Your task to perform on an android device: uninstall "ColorNote Notepad Notes" Image 0: 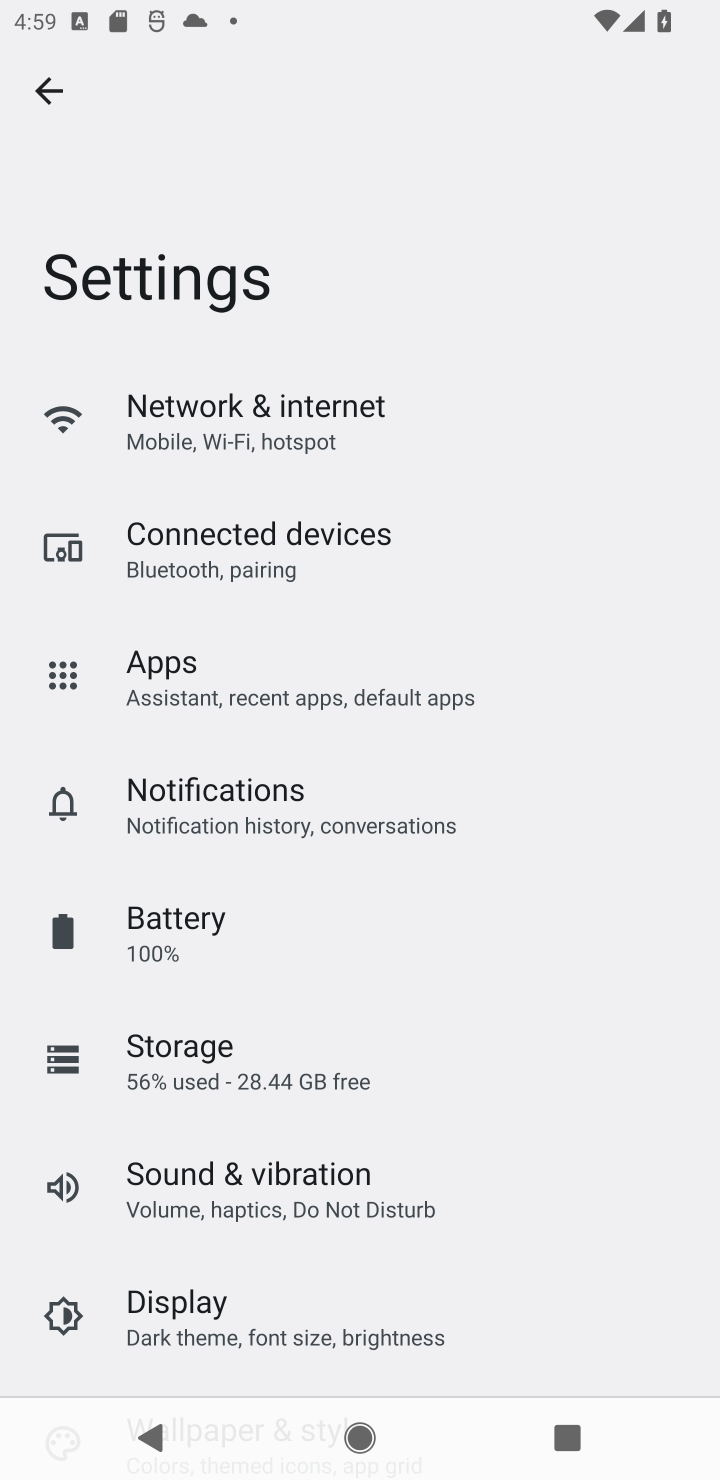
Step 0: press home button
Your task to perform on an android device: uninstall "ColorNote Notepad Notes" Image 1: 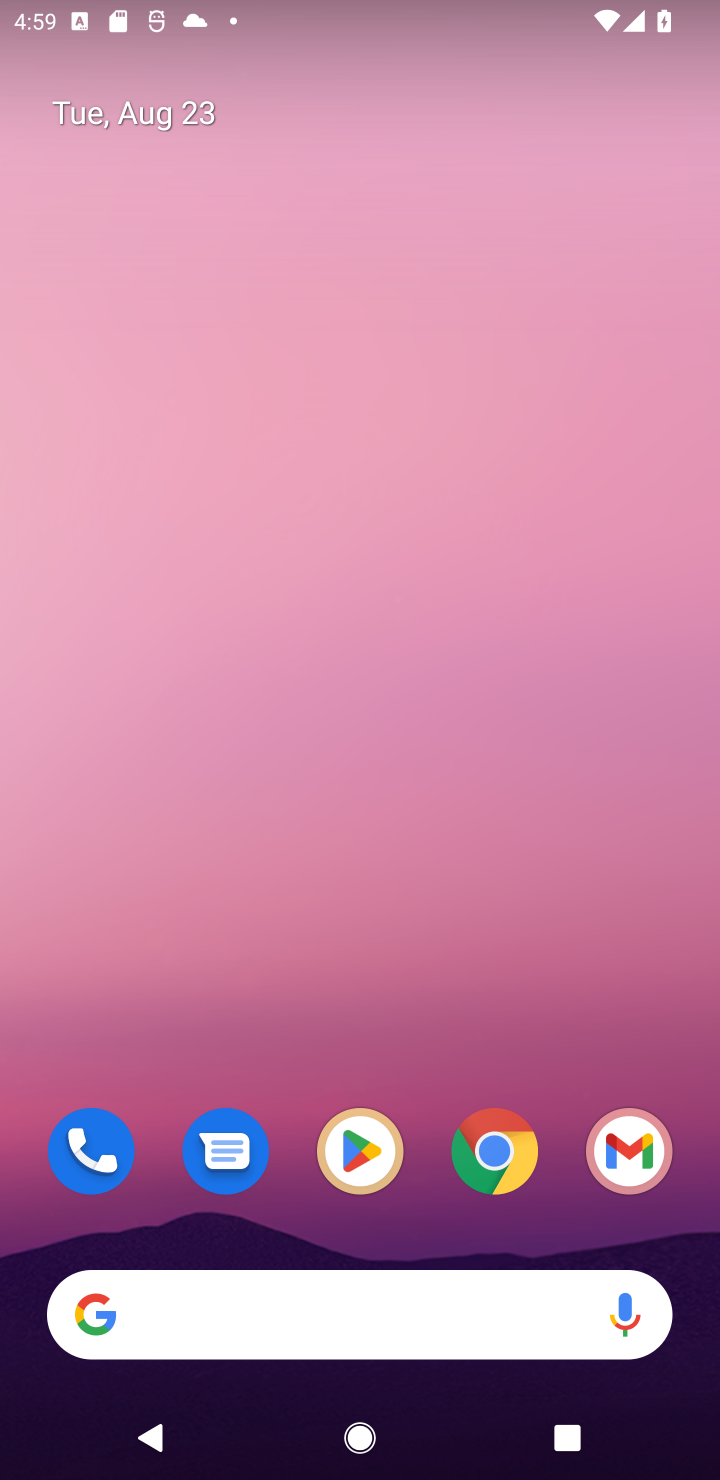
Step 1: click (358, 1151)
Your task to perform on an android device: uninstall "ColorNote Notepad Notes" Image 2: 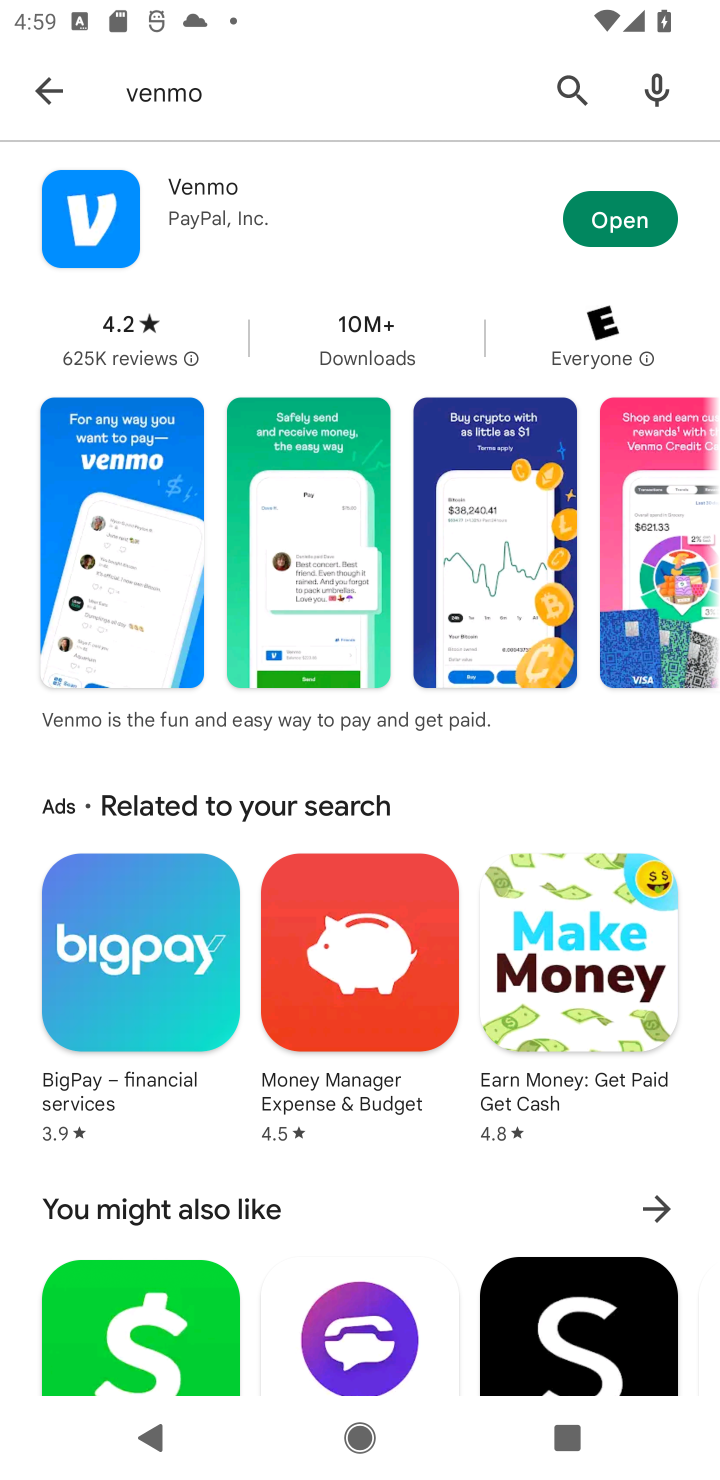
Step 2: click (567, 87)
Your task to perform on an android device: uninstall "ColorNote Notepad Notes" Image 3: 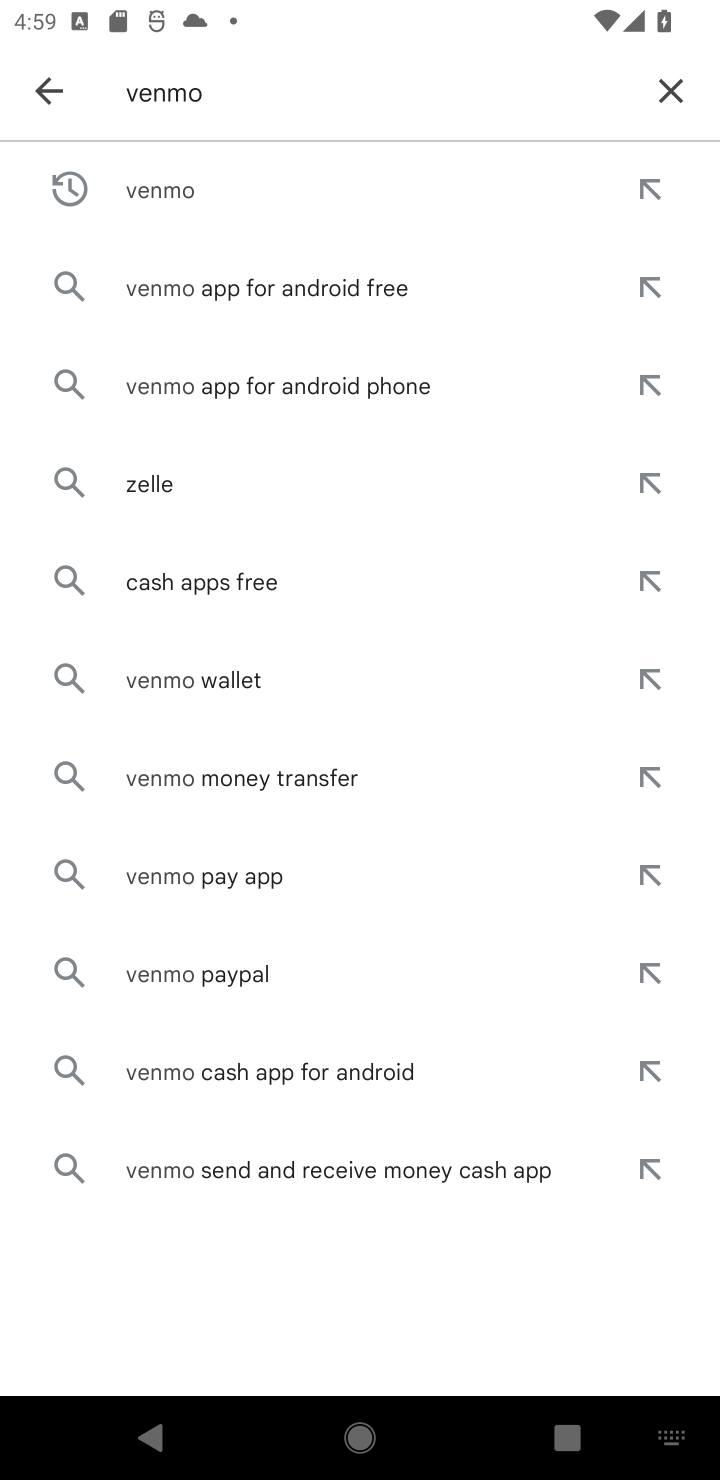
Step 3: click (673, 75)
Your task to perform on an android device: uninstall "ColorNote Notepad Notes" Image 4: 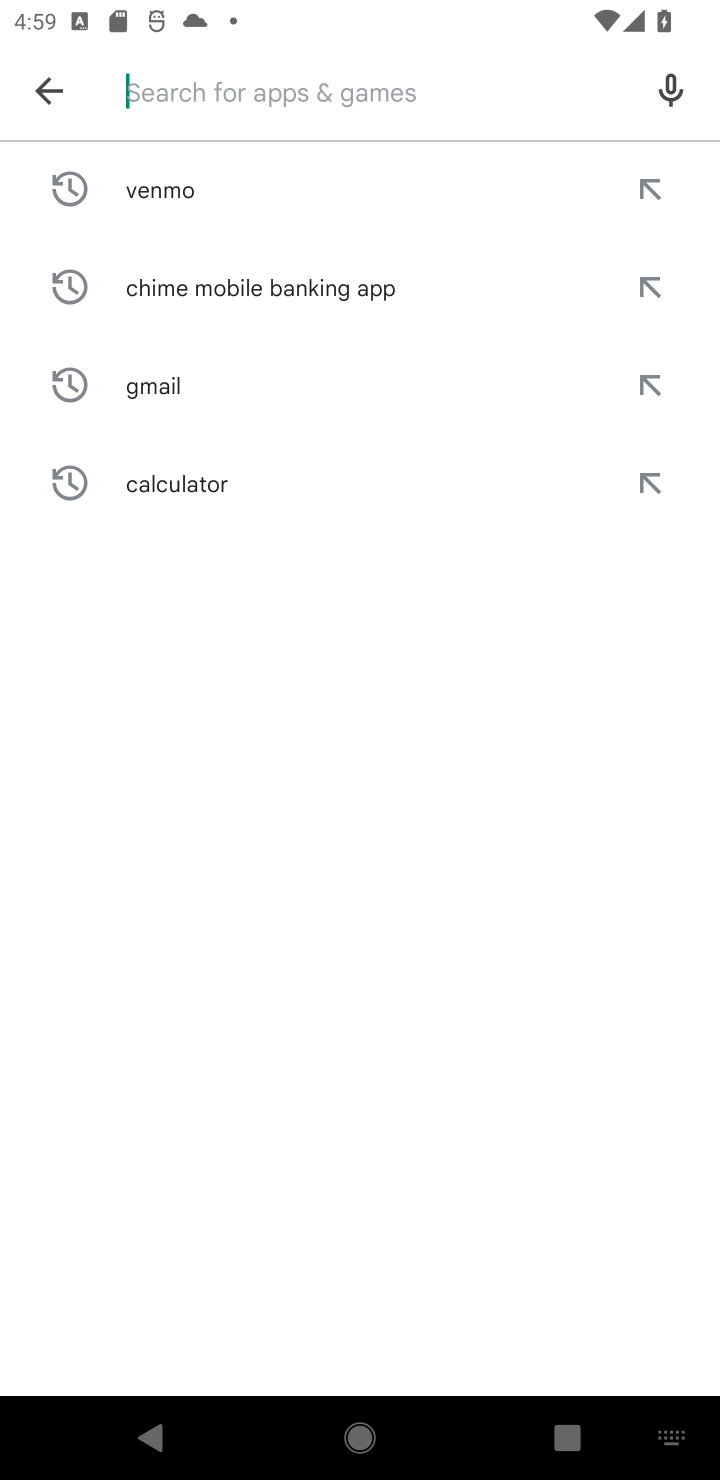
Step 4: type "ColorNote Notepad Notes"
Your task to perform on an android device: uninstall "ColorNote Notepad Notes" Image 5: 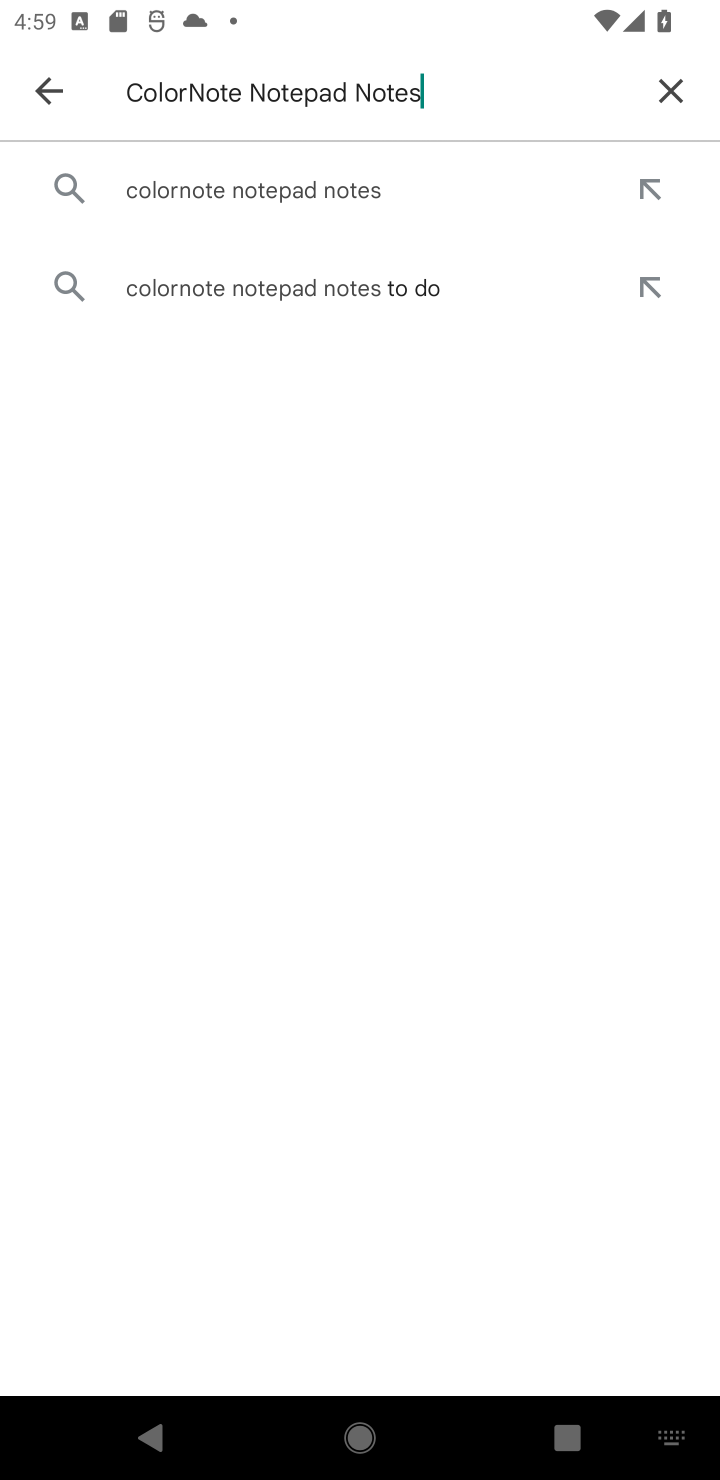
Step 5: click (351, 189)
Your task to perform on an android device: uninstall "ColorNote Notepad Notes" Image 6: 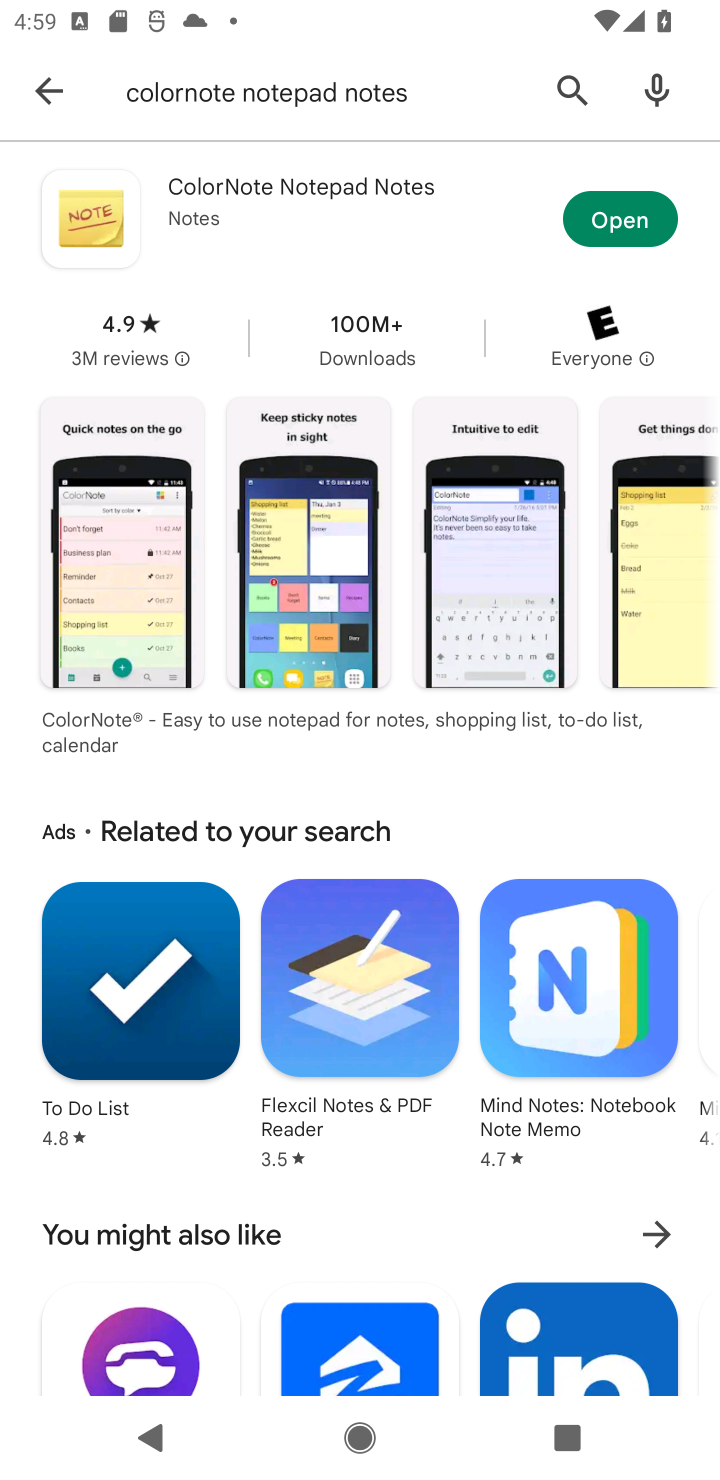
Step 6: click (108, 218)
Your task to perform on an android device: uninstall "ColorNote Notepad Notes" Image 7: 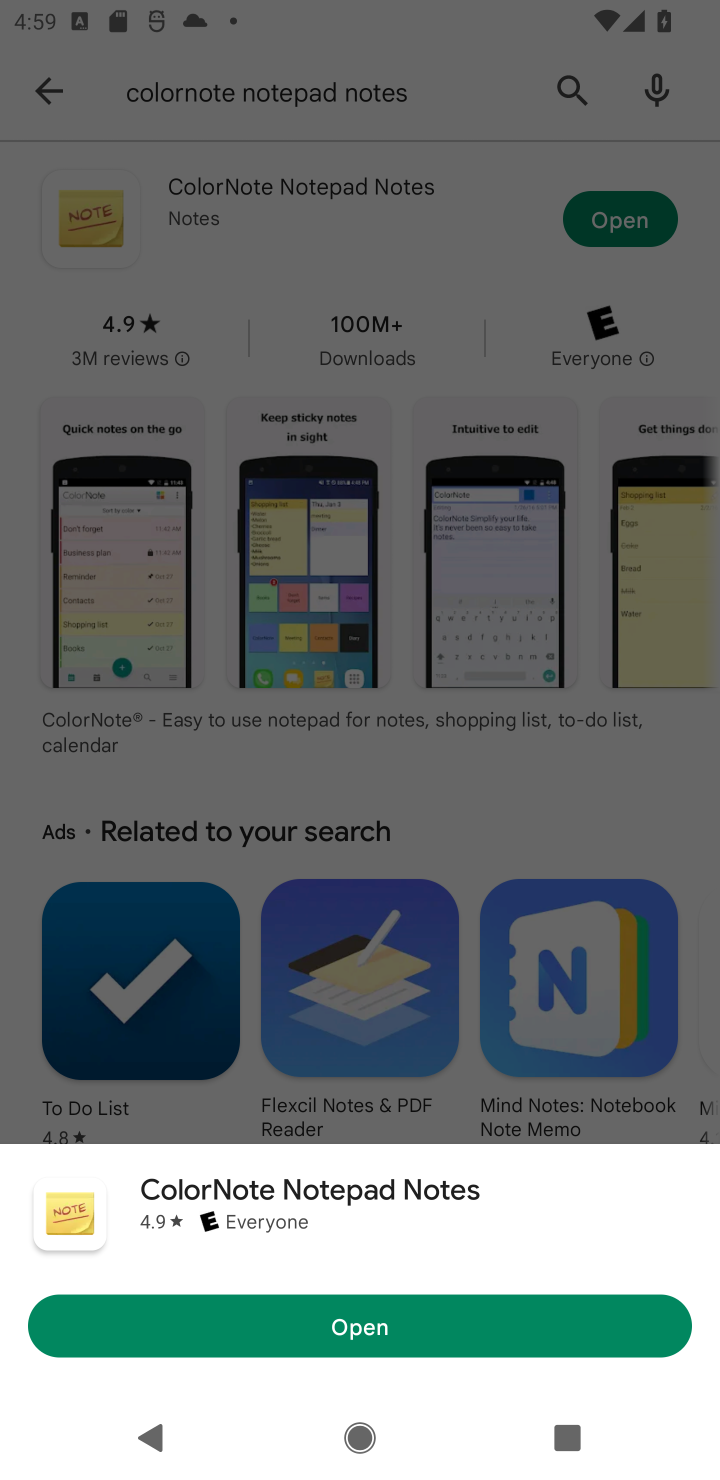
Step 7: click (108, 220)
Your task to perform on an android device: uninstall "ColorNote Notepad Notes" Image 8: 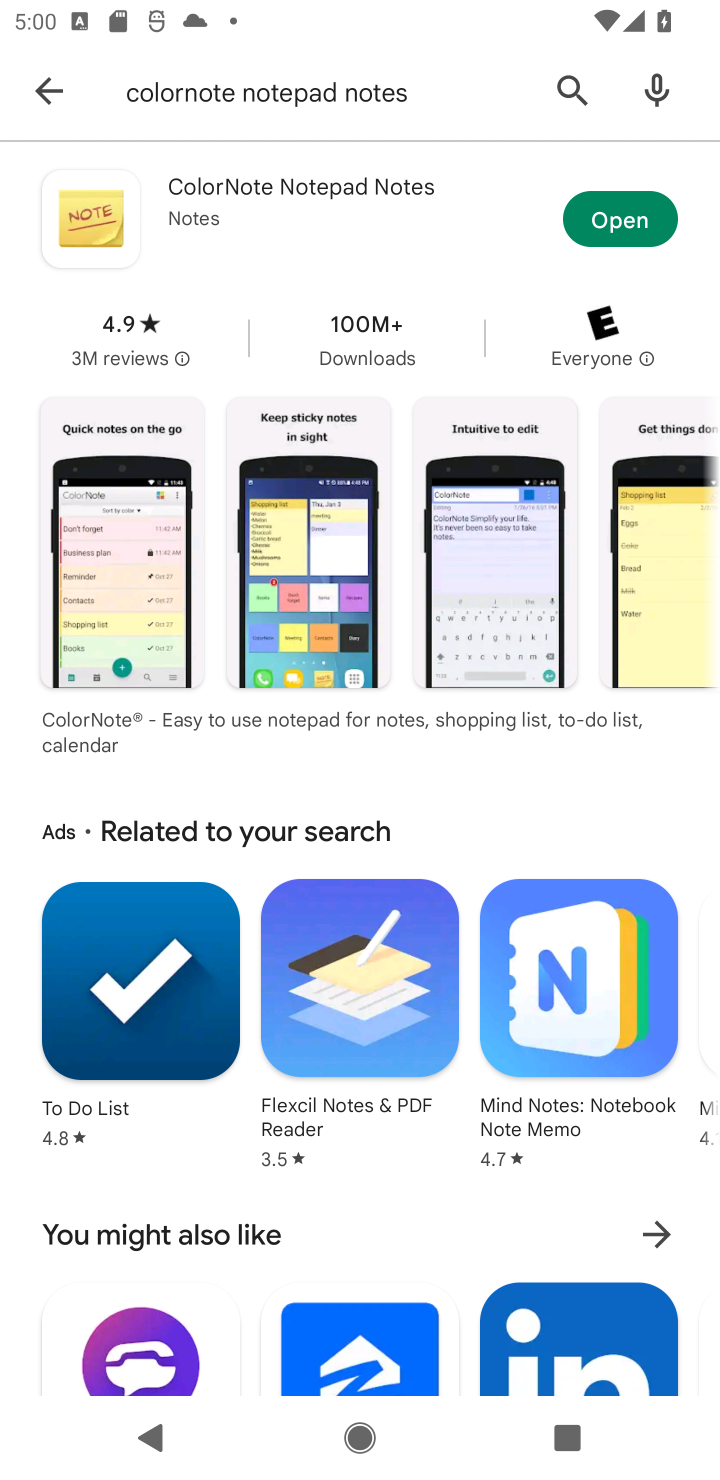
Step 8: click (203, 183)
Your task to perform on an android device: uninstall "ColorNote Notepad Notes" Image 9: 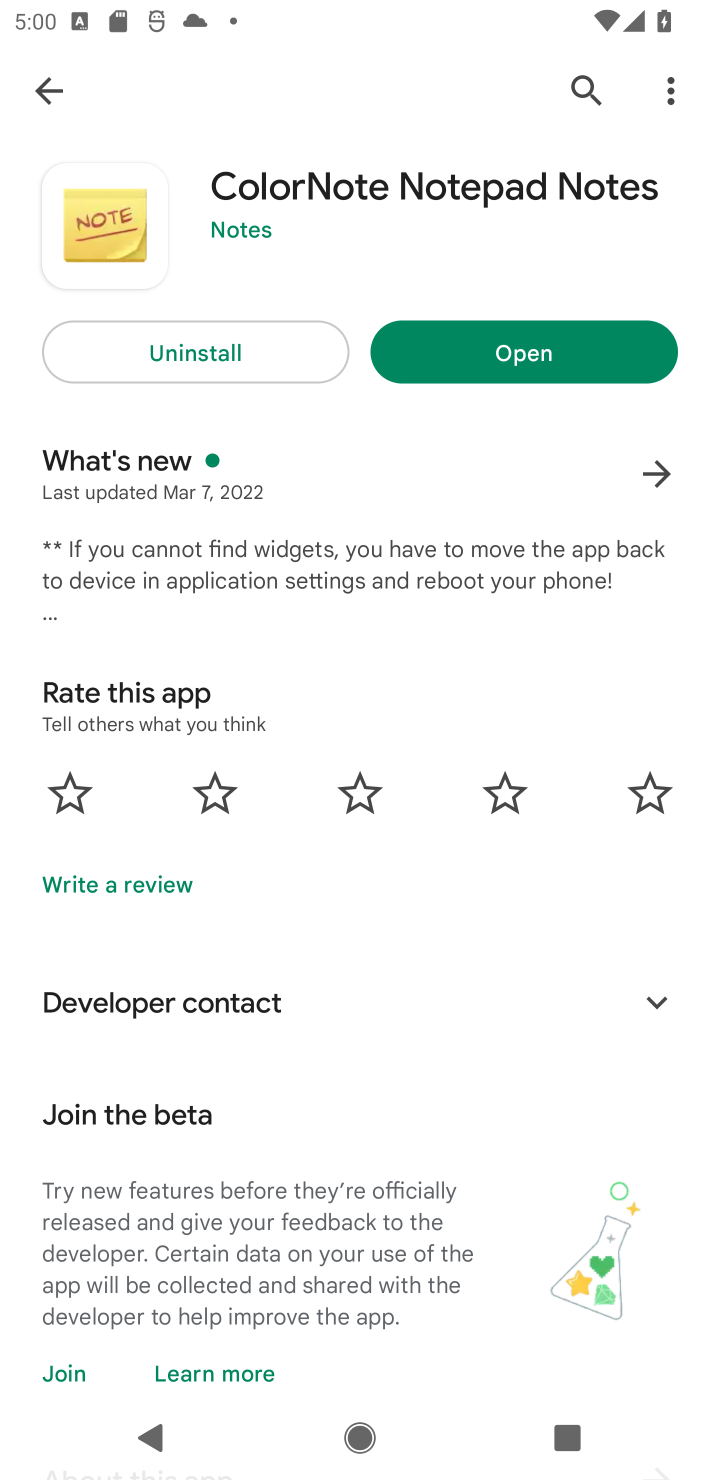
Step 9: click (230, 357)
Your task to perform on an android device: uninstall "ColorNote Notepad Notes" Image 10: 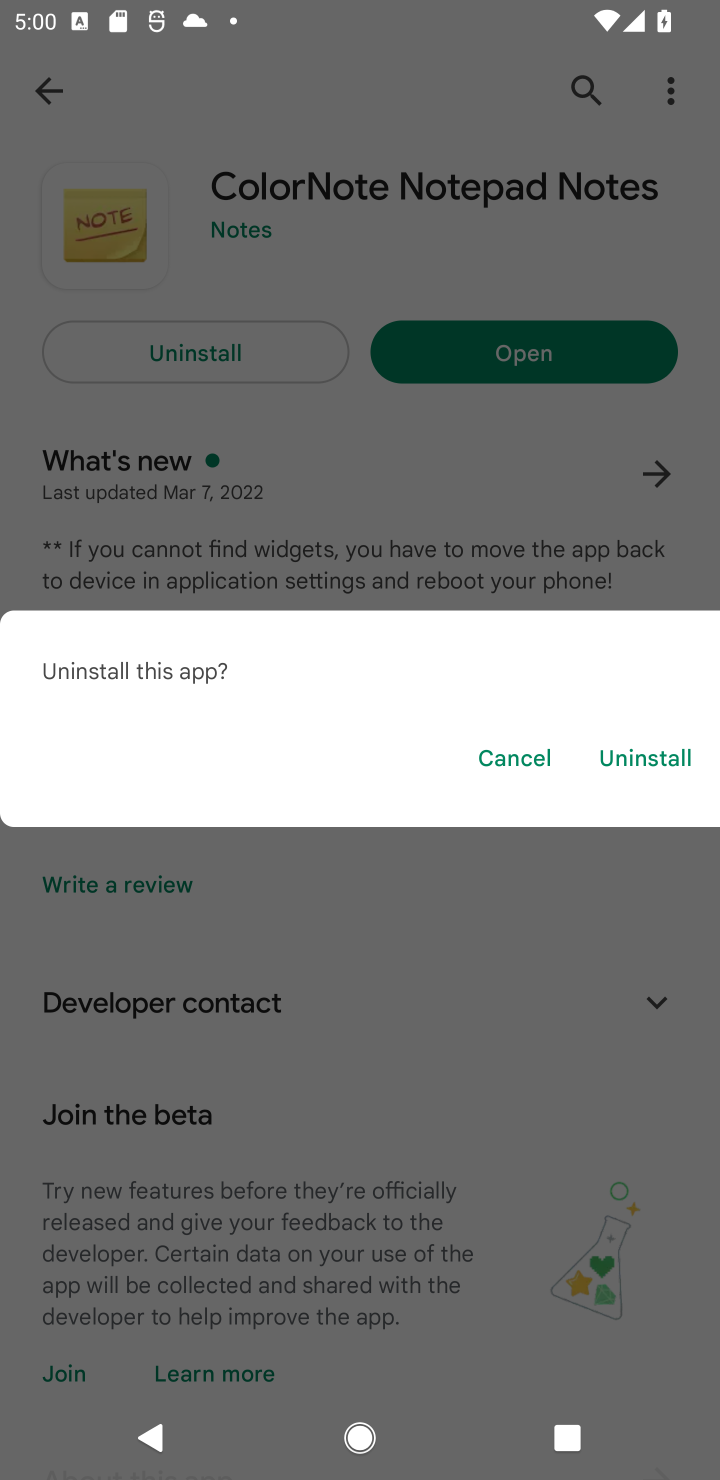
Step 10: click (646, 751)
Your task to perform on an android device: uninstall "ColorNote Notepad Notes" Image 11: 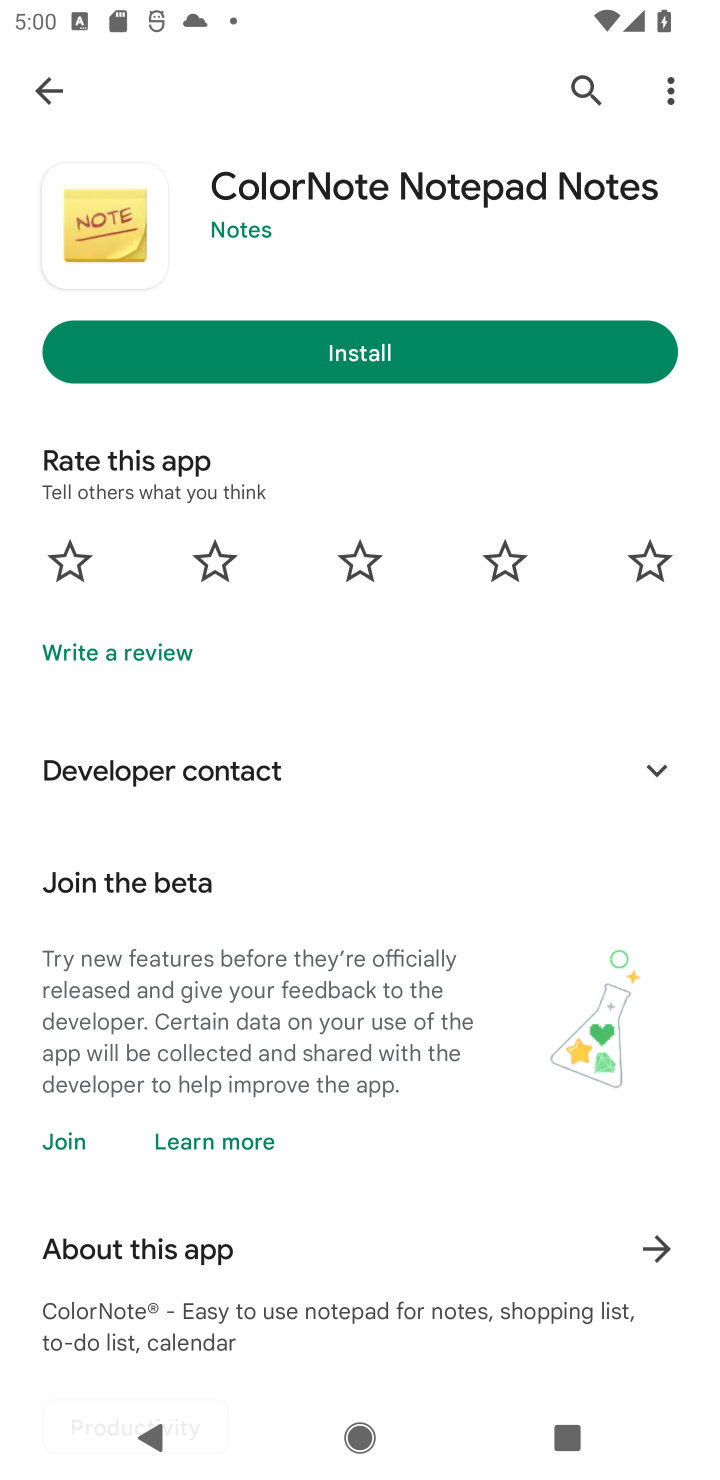
Step 11: task complete